Your task to perform on an android device: turn on translation in the chrome app Image 0: 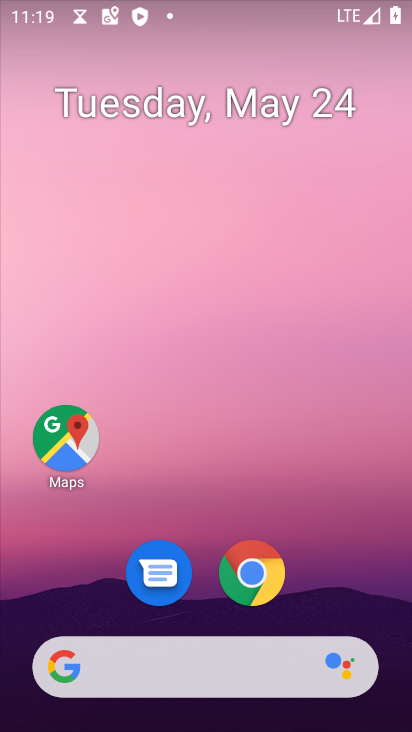
Step 0: click (233, 578)
Your task to perform on an android device: turn on translation in the chrome app Image 1: 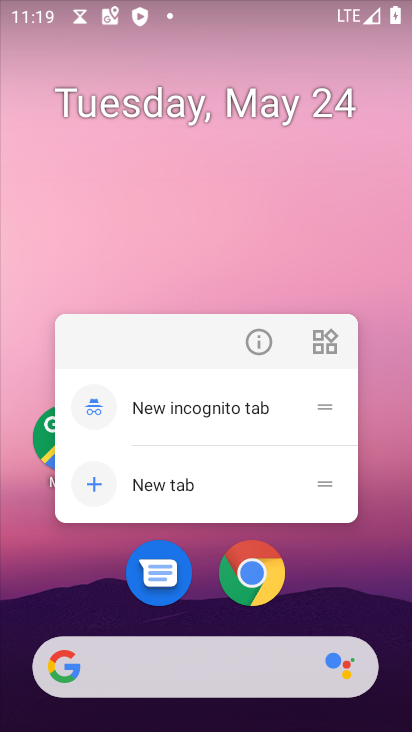
Step 1: click (256, 576)
Your task to perform on an android device: turn on translation in the chrome app Image 2: 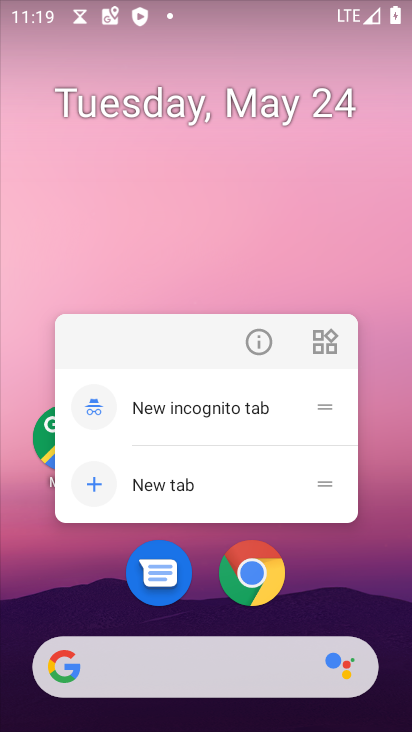
Step 2: click (269, 581)
Your task to perform on an android device: turn on translation in the chrome app Image 3: 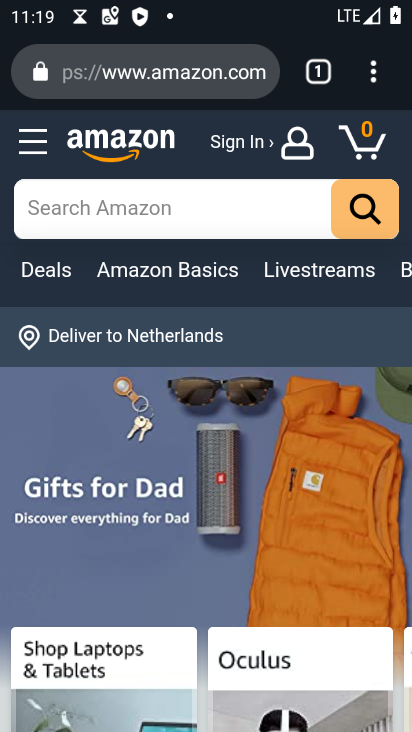
Step 3: drag from (370, 64) to (243, 577)
Your task to perform on an android device: turn on translation in the chrome app Image 4: 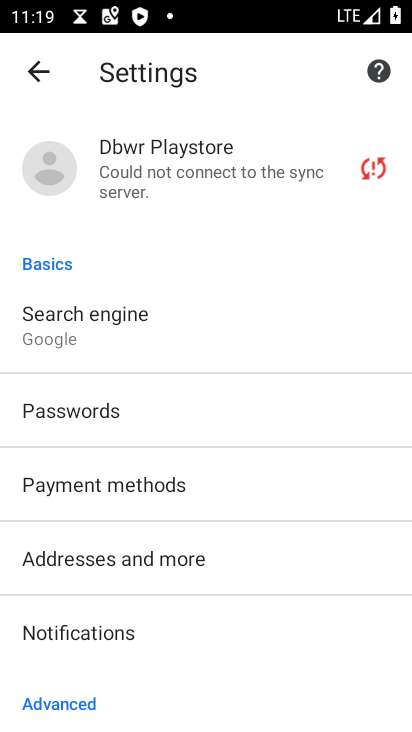
Step 4: drag from (159, 614) to (278, 253)
Your task to perform on an android device: turn on translation in the chrome app Image 5: 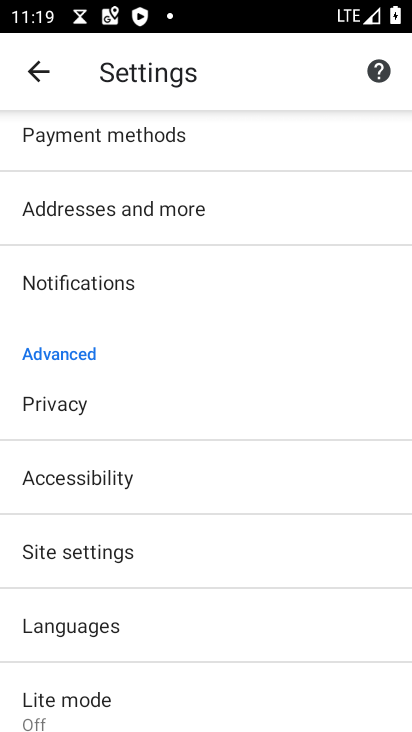
Step 5: click (141, 631)
Your task to perform on an android device: turn on translation in the chrome app Image 6: 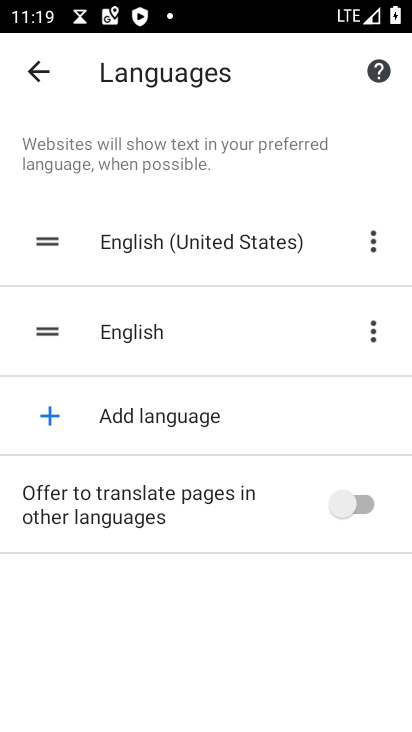
Step 6: click (371, 504)
Your task to perform on an android device: turn on translation in the chrome app Image 7: 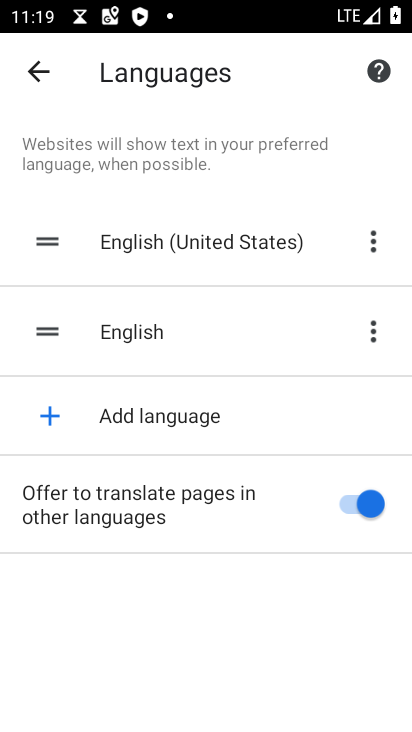
Step 7: task complete